Your task to perform on an android device: Search for Mexican restaurants on Maps Image 0: 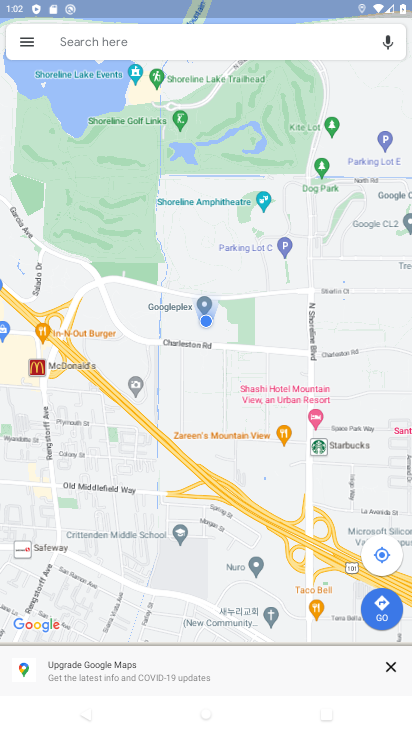
Step 0: click (161, 49)
Your task to perform on an android device: Search for Mexican restaurants on Maps Image 1: 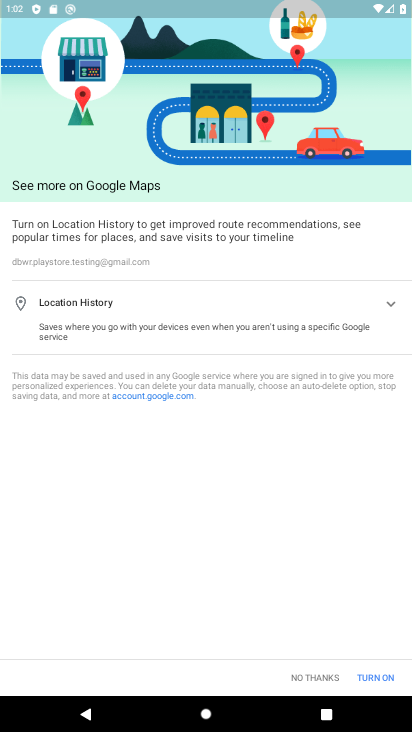
Step 1: click (323, 690)
Your task to perform on an android device: Search for Mexican restaurants on Maps Image 2: 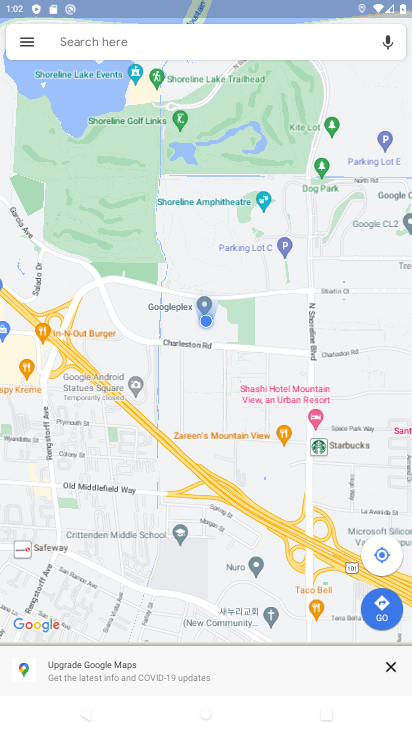
Step 2: click (104, 41)
Your task to perform on an android device: Search for Mexican restaurants on Maps Image 3: 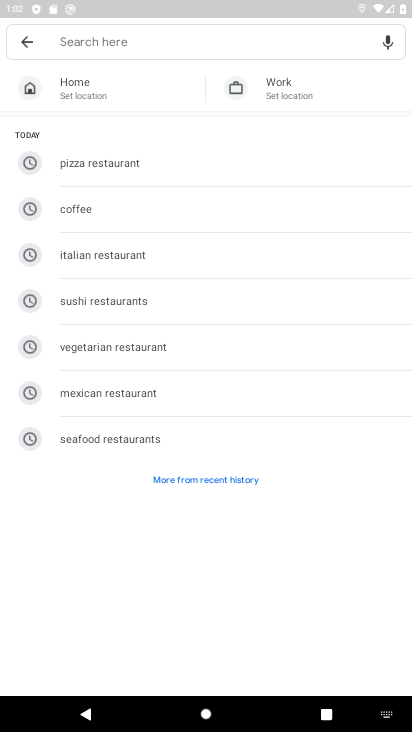
Step 3: type "Mexican restaurants"
Your task to perform on an android device: Search for Mexican restaurants on Maps Image 4: 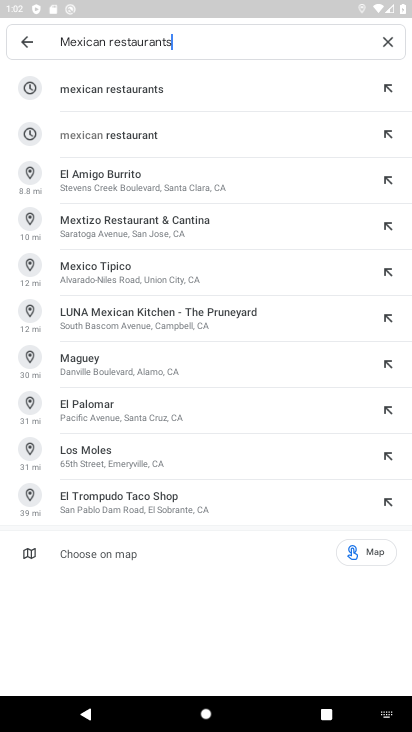
Step 4: click (156, 85)
Your task to perform on an android device: Search for Mexican restaurants on Maps Image 5: 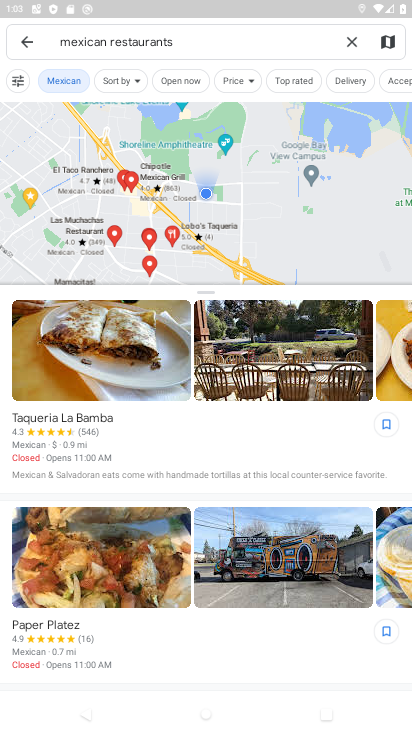
Step 5: task complete